Your task to perform on an android device: Search for Italian restaurants on Maps Image 0: 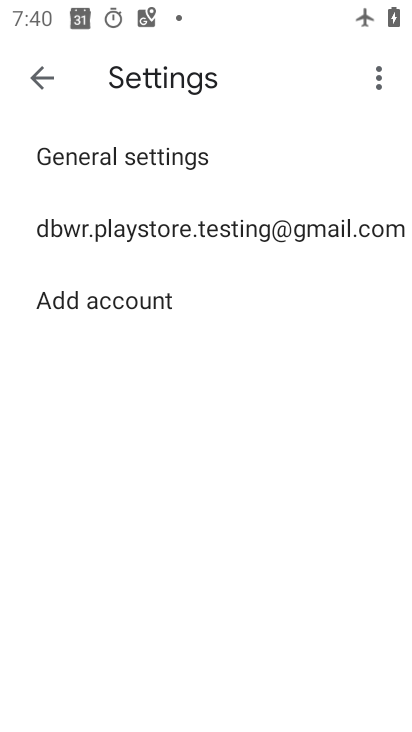
Step 0: press home button
Your task to perform on an android device: Search for Italian restaurants on Maps Image 1: 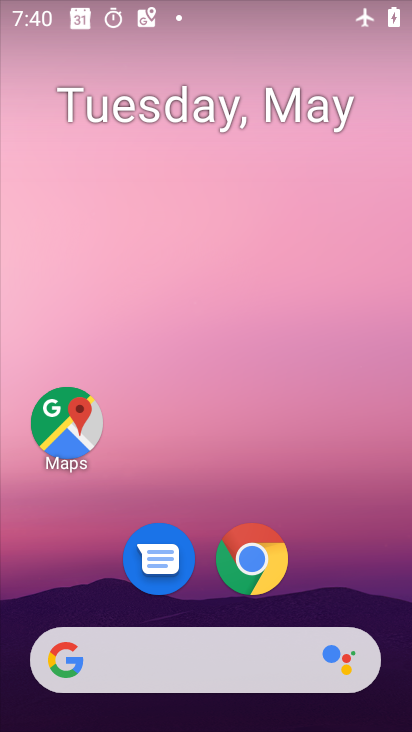
Step 1: drag from (402, 650) to (262, 69)
Your task to perform on an android device: Search for Italian restaurants on Maps Image 2: 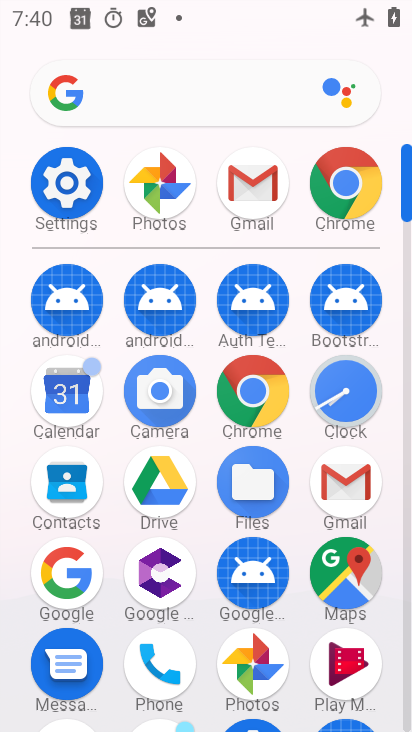
Step 2: click (336, 559)
Your task to perform on an android device: Search for Italian restaurants on Maps Image 3: 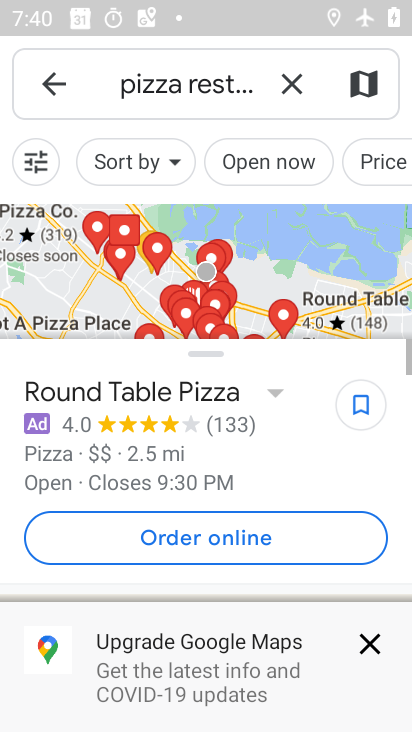
Step 3: click (292, 84)
Your task to perform on an android device: Search for Italian restaurants on Maps Image 4: 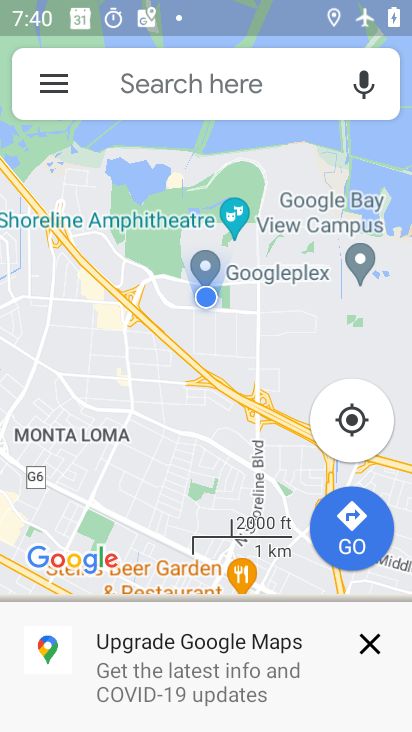
Step 4: click (145, 83)
Your task to perform on an android device: Search for Italian restaurants on Maps Image 5: 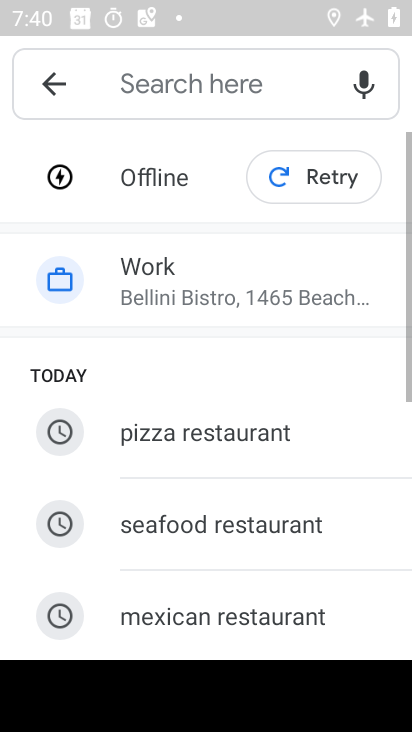
Step 5: drag from (207, 617) to (236, 241)
Your task to perform on an android device: Search for Italian restaurants on Maps Image 6: 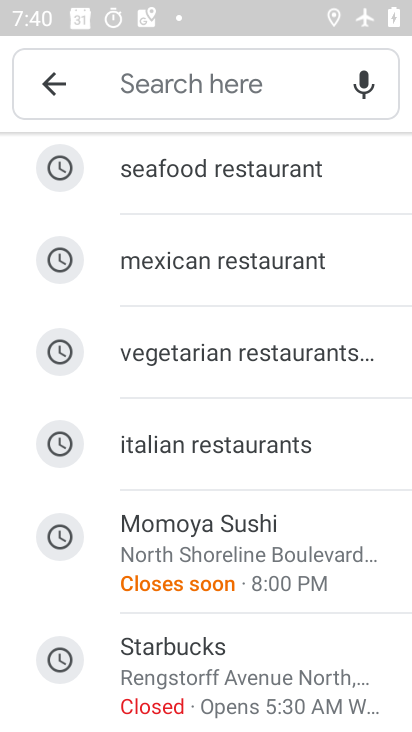
Step 6: click (247, 438)
Your task to perform on an android device: Search for Italian restaurants on Maps Image 7: 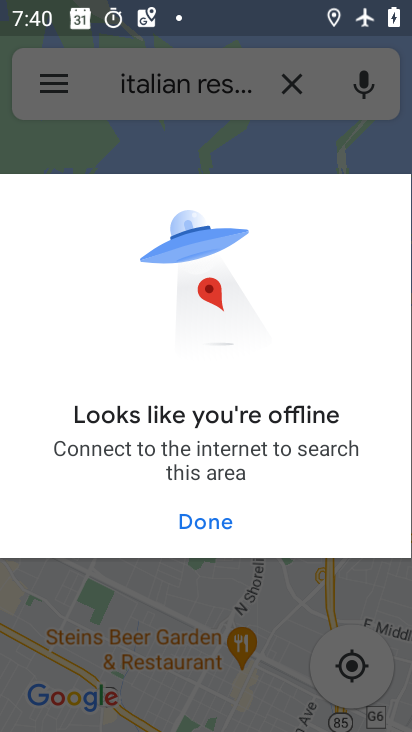
Step 7: task complete